Your task to perform on an android device: change the clock style Image 0: 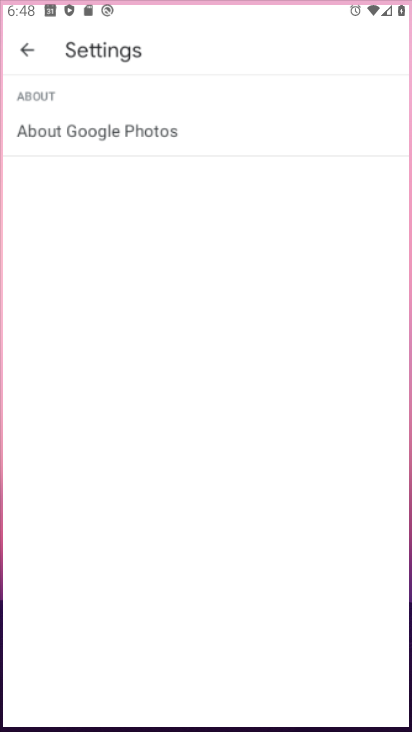
Step 0: drag from (312, 624) to (257, 24)
Your task to perform on an android device: change the clock style Image 1: 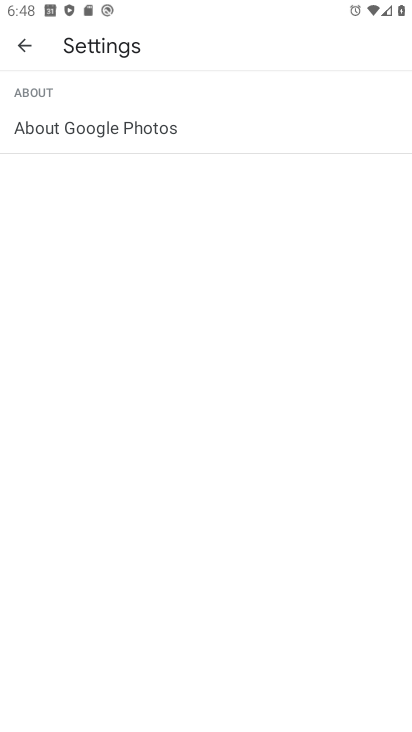
Step 1: press home button
Your task to perform on an android device: change the clock style Image 2: 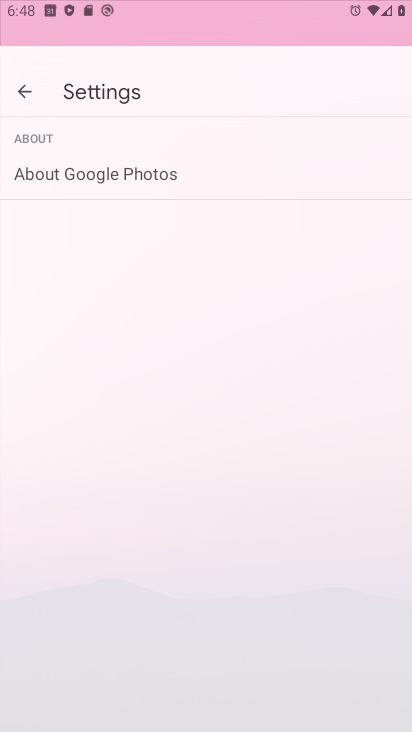
Step 2: drag from (150, 659) to (113, 51)
Your task to perform on an android device: change the clock style Image 3: 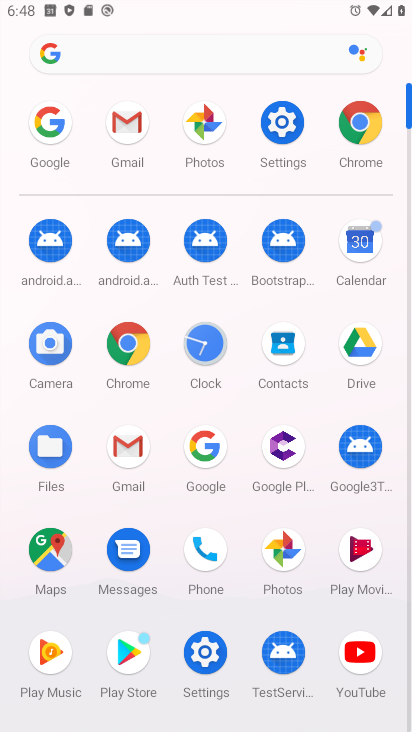
Step 3: click (198, 342)
Your task to perform on an android device: change the clock style Image 4: 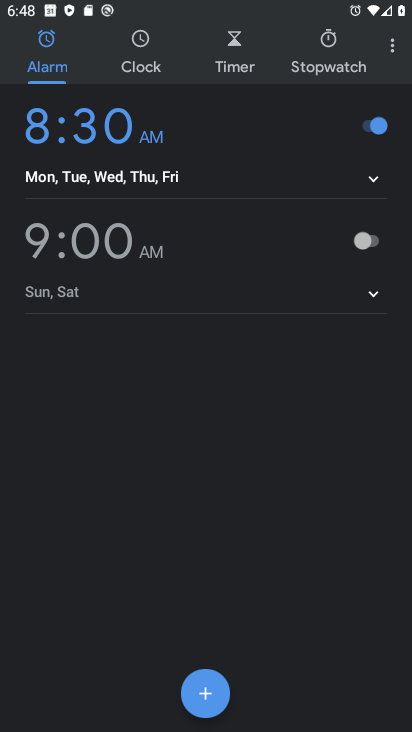
Step 4: click (382, 46)
Your task to perform on an android device: change the clock style Image 5: 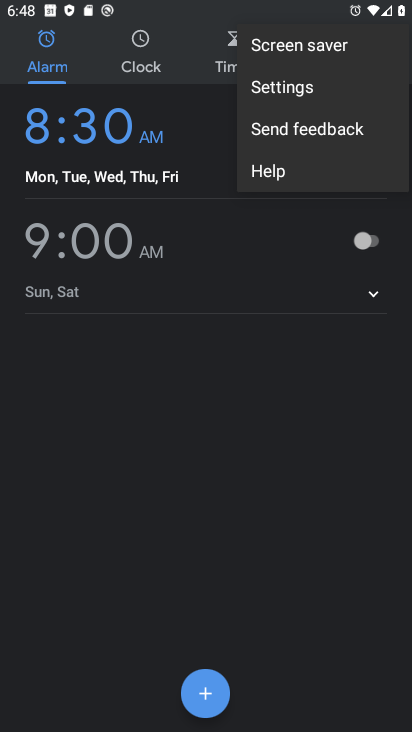
Step 5: click (343, 93)
Your task to perform on an android device: change the clock style Image 6: 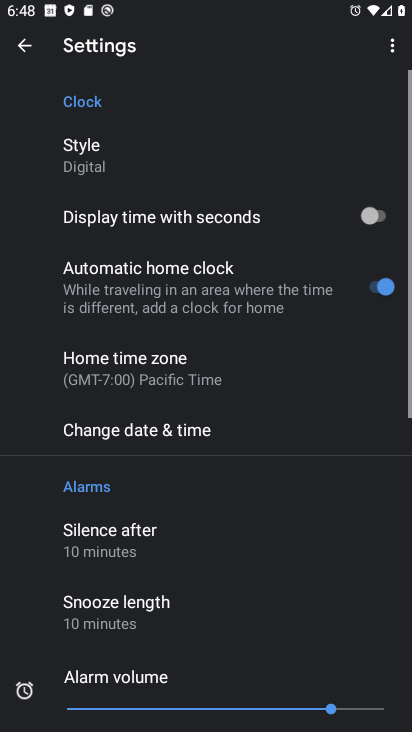
Step 6: click (114, 152)
Your task to perform on an android device: change the clock style Image 7: 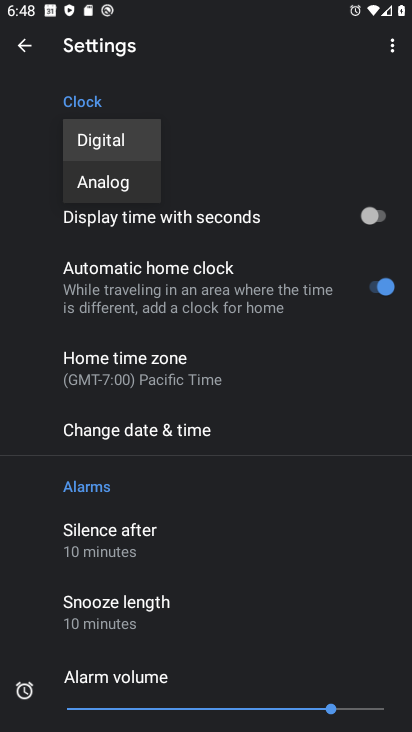
Step 7: click (115, 180)
Your task to perform on an android device: change the clock style Image 8: 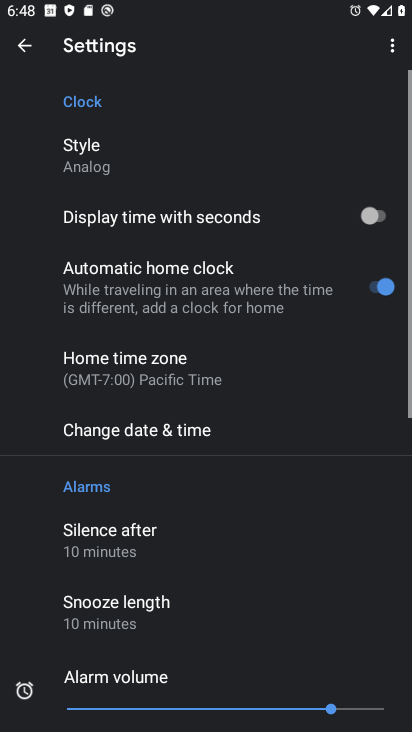
Step 8: task complete